Your task to perform on an android device: Search for pizza restaurants on Maps Image 0: 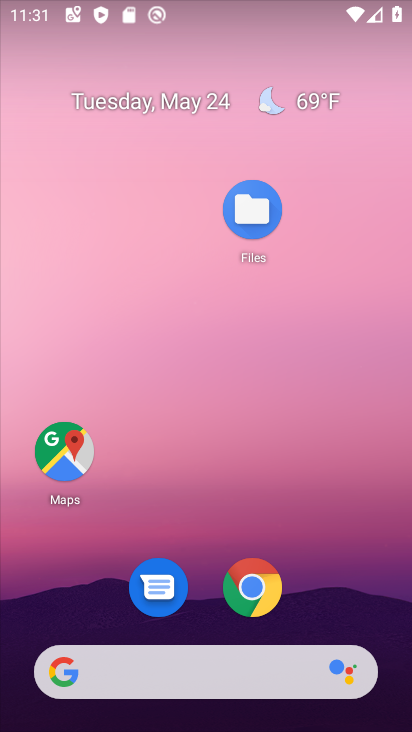
Step 0: click (49, 456)
Your task to perform on an android device: Search for pizza restaurants on Maps Image 1: 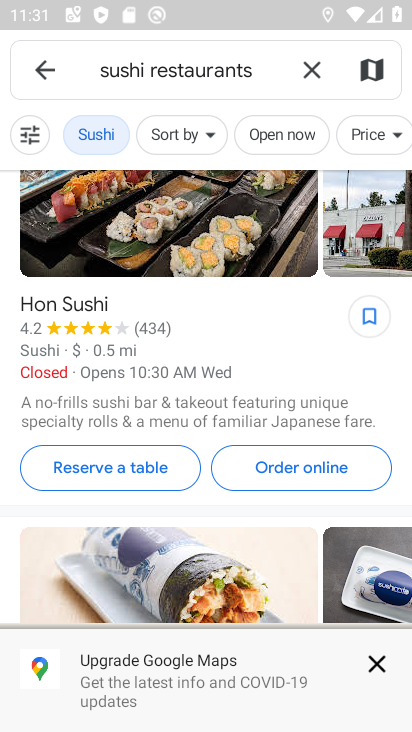
Step 1: click (314, 65)
Your task to perform on an android device: Search for pizza restaurants on Maps Image 2: 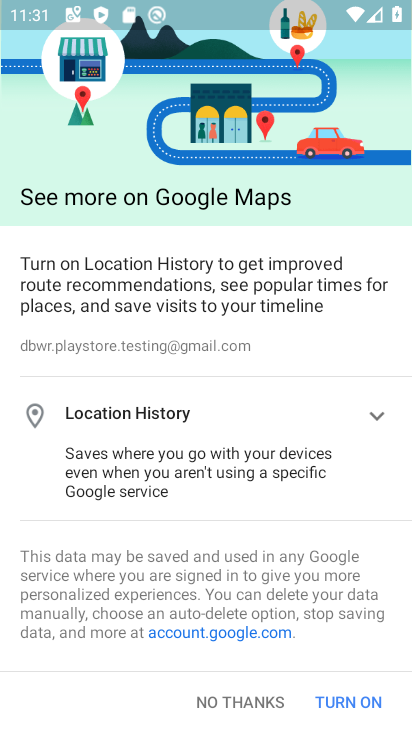
Step 2: press back button
Your task to perform on an android device: Search for pizza restaurants on Maps Image 3: 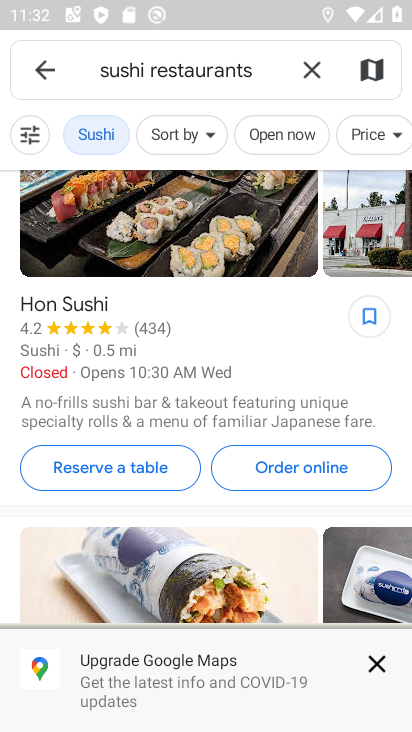
Step 3: click (309, 75)
Your task to perform on an android device: Search for pizza restaurants on Maps Image 4: 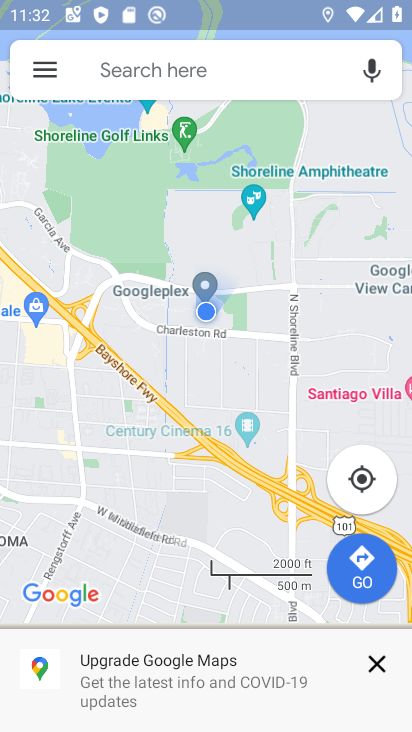
Step 4: click (245, 56)
Your task to perform on an android device: Search for pizza restaurants on Maps Image 5: 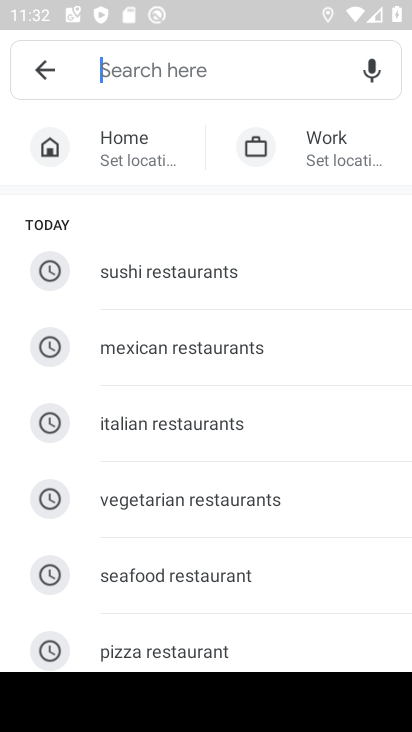
Step 5: click (177, 650)
Your task to perform on an android device: Search for pizza restaurants on Maps Image 6: 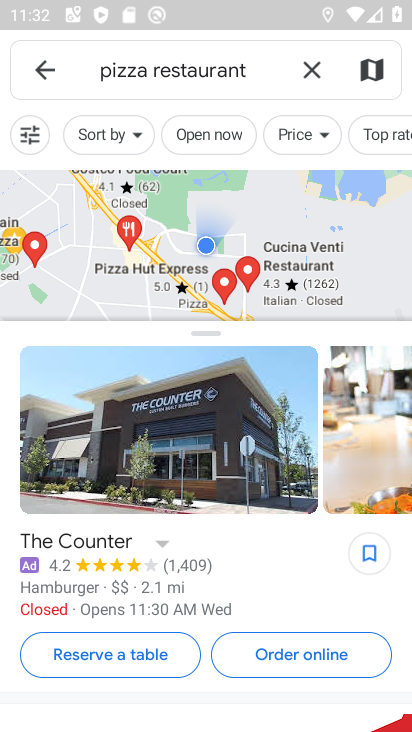
Step 6: task complete